Your task to perform on an android device: find snoozed emails in the gmail app Image 0: 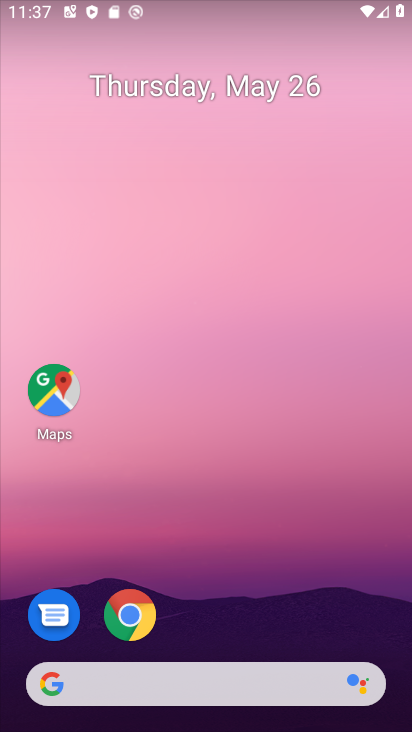
Step 0: drag from (189, 680) to (296, 38)
Your task to perform on an android device: find snoozed emails in the gmail app Image 1: 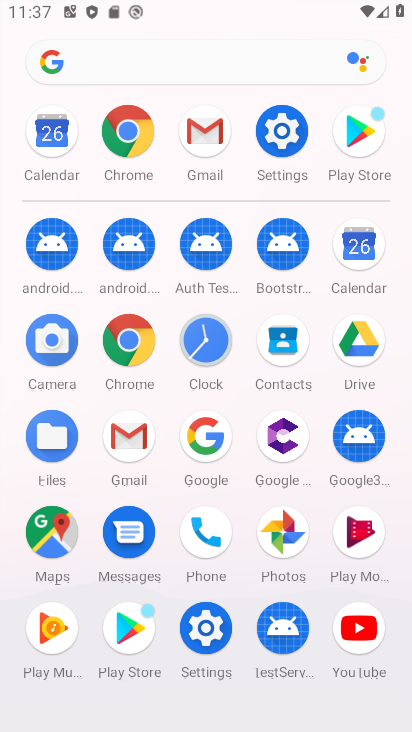
Step 1: click (129, 432)
Your task to perform on an android device: find snoozed emails in the gmail app Image 2: 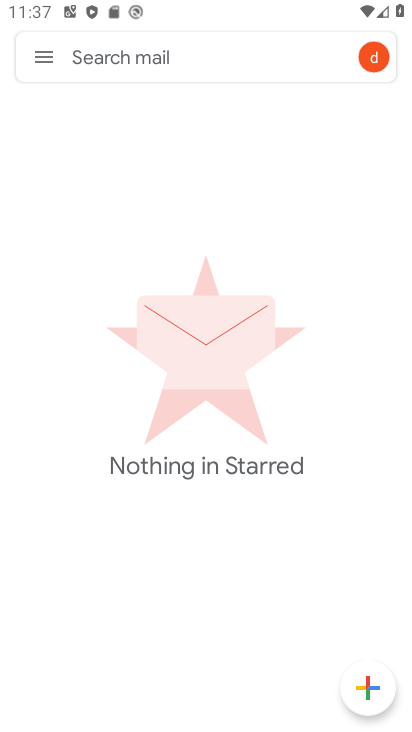
Step 2: press back button
Your task to perform on an android device: find snoozed emails in the gmail app Image 3: 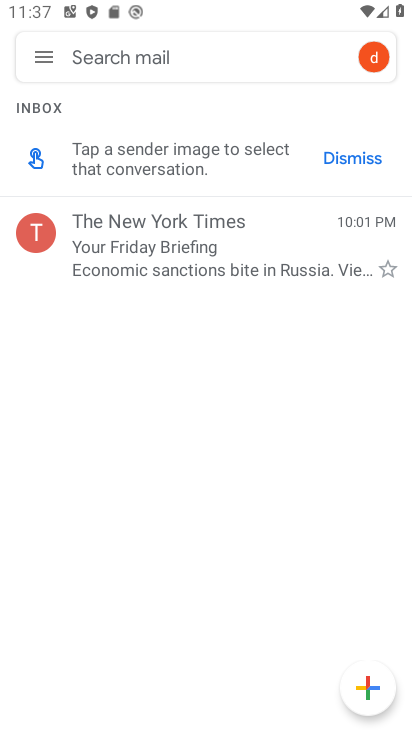
Step 3: click (30, 57)
Your task to perform on an android device: find snoozed emails in the gmail app Image 4: 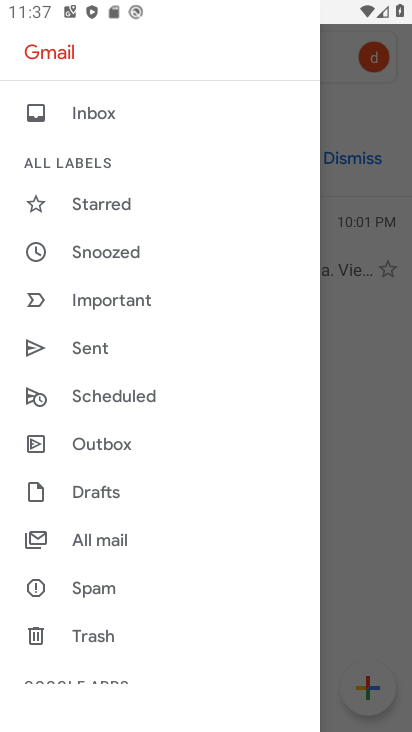
Step 4: click (401, 311)
Your task to perform on an android device: find snoozed emails in the gmail app Image 5: 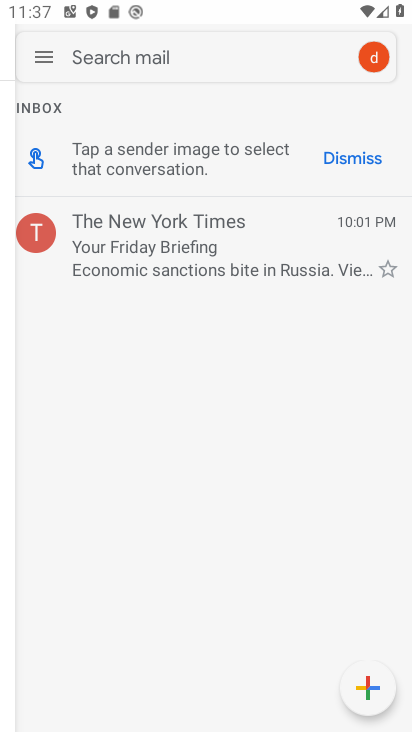
Step 5: click (373, 302)
Your task to perform on an android device: find snoozed emails in the gmail app Image 6: 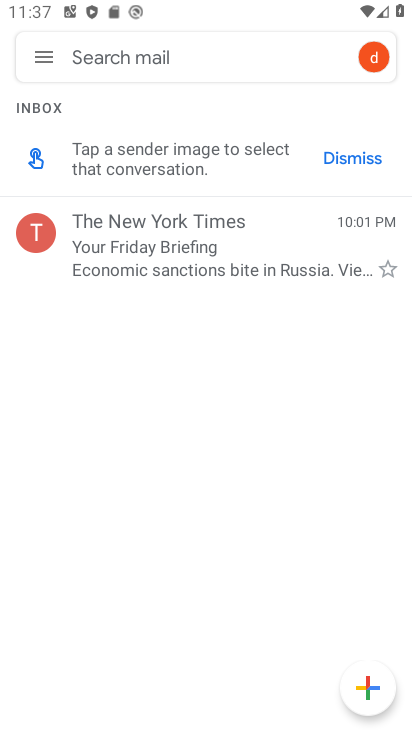
Step 6: click (298, 263)
Your task to perform on an android device: find snoozed emails in the gmail app Image 7: 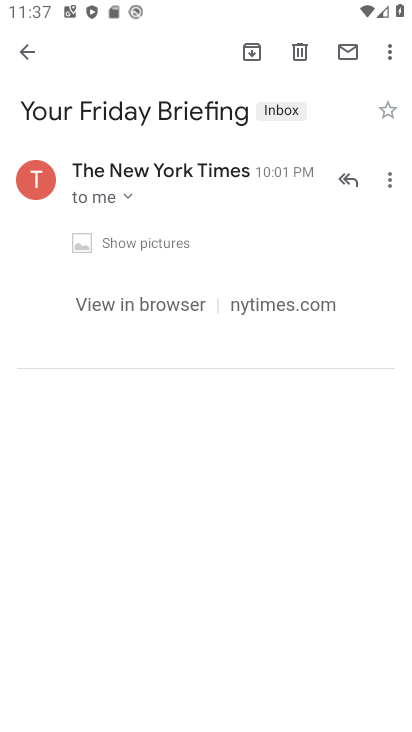
Step 7: click (374, 50)
Your task to perform on an android device: find snoozed emails in the gmail app Image 8: 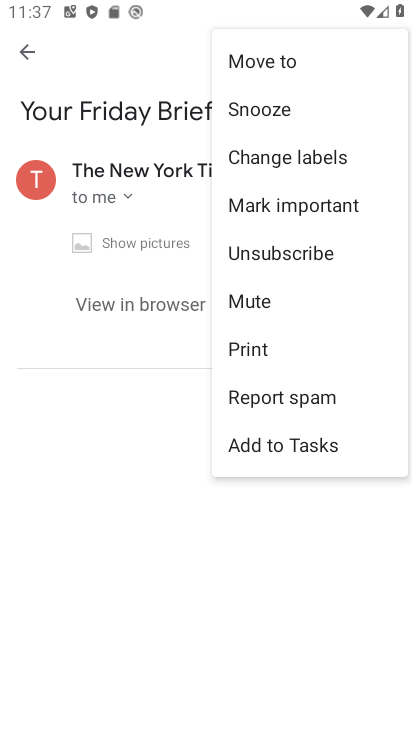
Step 8: click (286, 114)
Your task to perform on an android device: find snoozed emails in the gmail app Image 9: 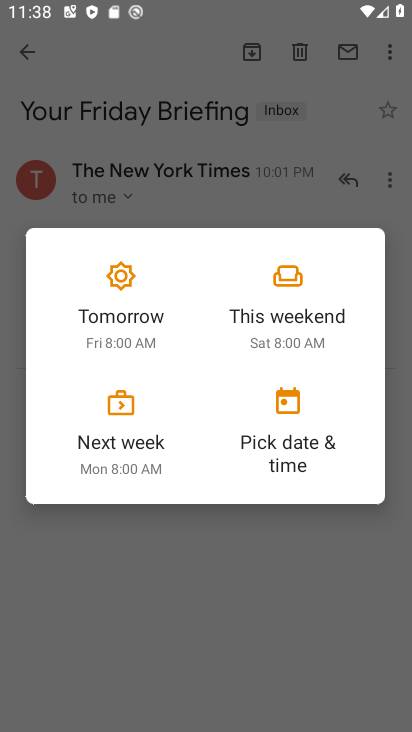
Step 9: click (118, 400)
Your task to perform on an android device: find snoozed emails in the gmail app Image 10: 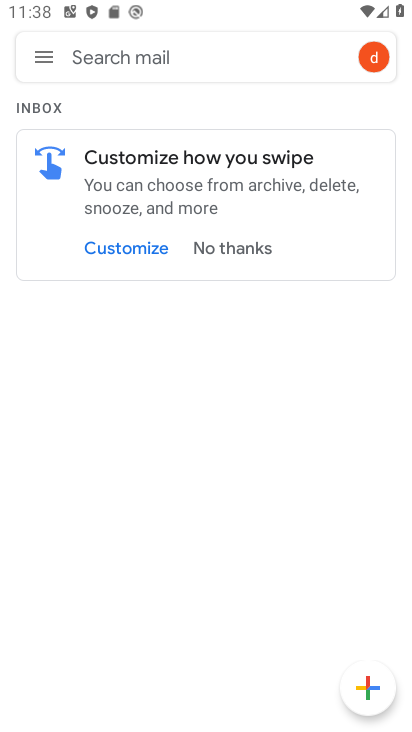
Step 10: task complete